Your task to perform on an android device: manage bookmarks in the chrome app Image 0: 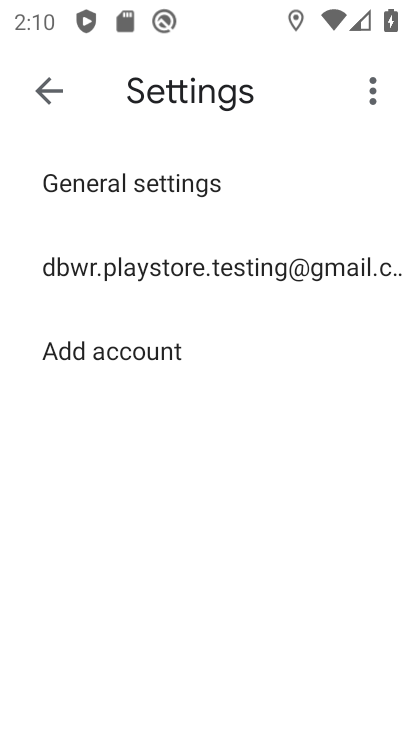
Step 0: press home button
Your task to perform on an android device: manage bookmarks in the chrome app Image 1: 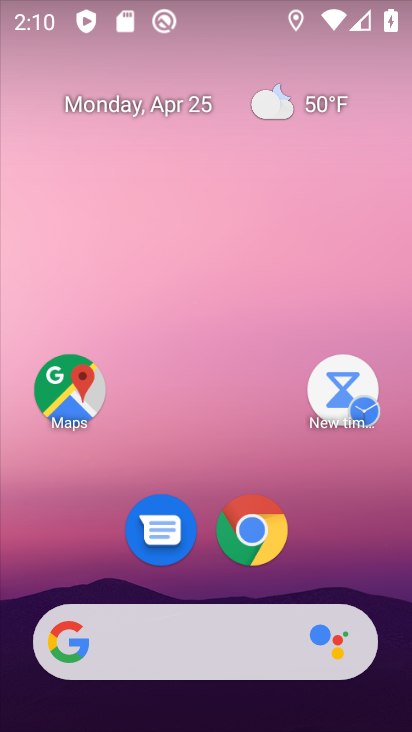
Step 1: drag from (224, 578) to (401, 28)
Your task to perform on an android device: manage bookmarks in the chrome app Image 2: 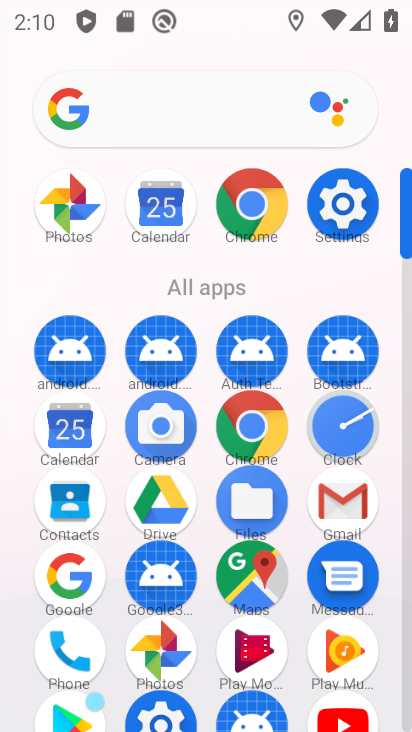
Step 2: click (255, 423)
Your task to perform on an android device: manage bookmarks in the chrome app Image 3: 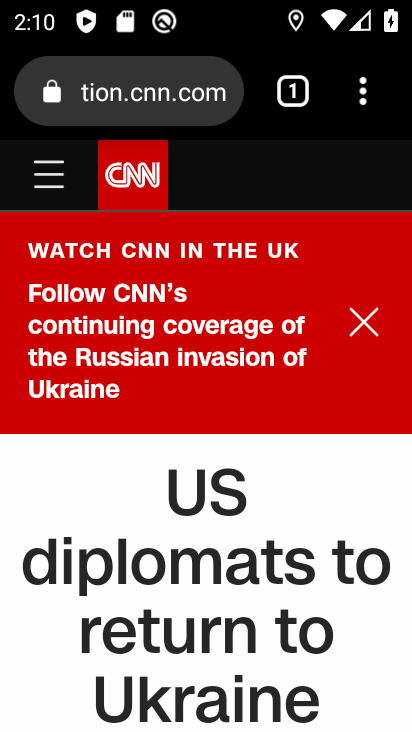
Step 3: drag from (371, 90) to (145, 352)
Your task to perform on an android device: manage bookmarks in the chrome app Image 4: 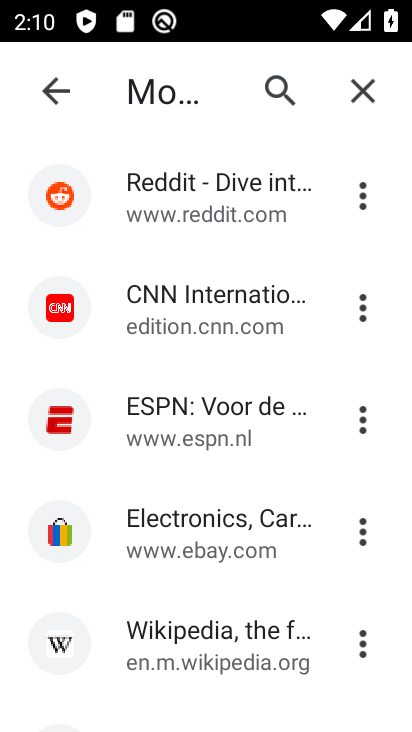
Step 4: drag from (246, 574) to (229, 358)
Your task to perform on an android device: manage bookmarks in the chrome app Image 5: 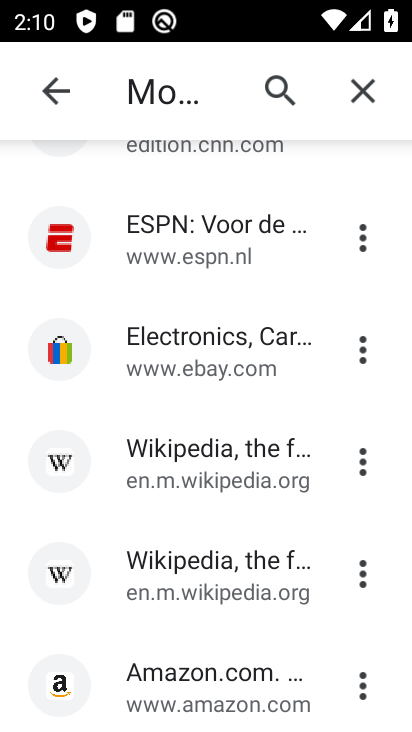
Step 5: click (361, 463)
Your task to perform on an android device: manage bookmarks in the chrome app Image 6: 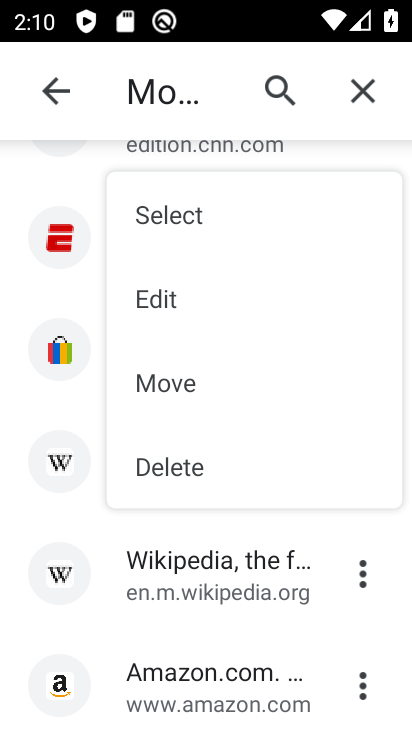
Step 6: click (163, 283)
Your task to perform on an android device: manage bookmarks in the chrome app Image 7: 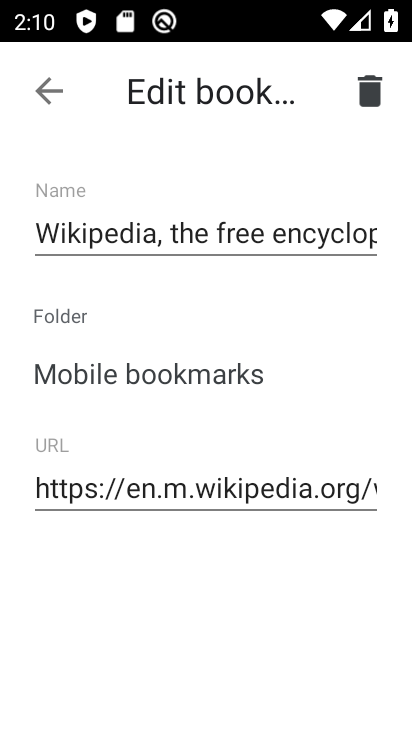
Step 7: click (351, 91)
Your task to perform on an android device: manage bookmarks in the chrome app Image 8: 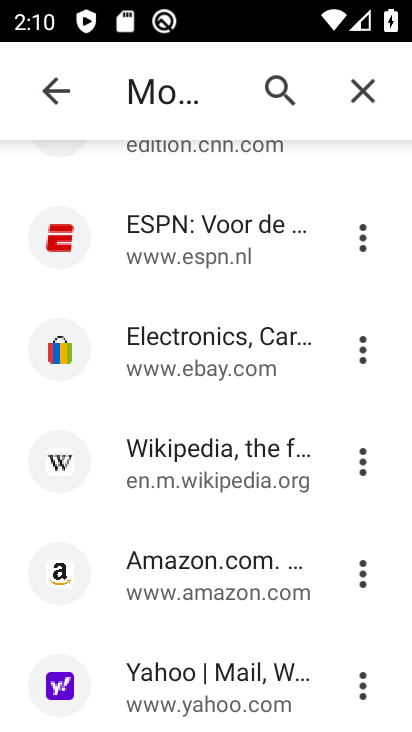
Step 8: task complete